Your task to perform on an android device: Open Amazon Image 0: 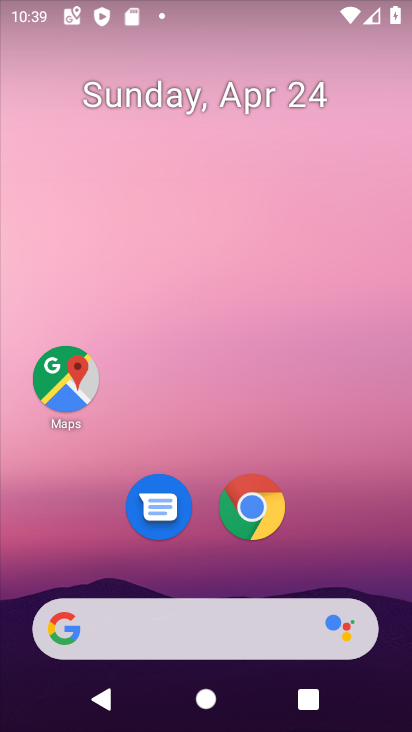
Step 0: click (266, 514)
Your task to perform on an android device: Open Amazon Image 1: 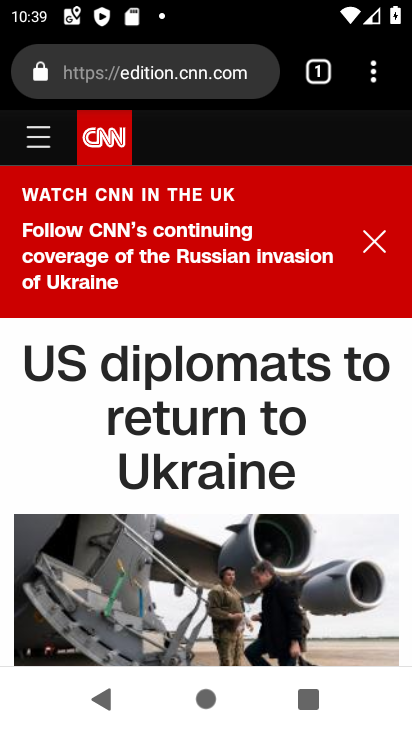
Step 1: click (319, 77)
Your task to perform on an android device: Open Amazon Image 2: 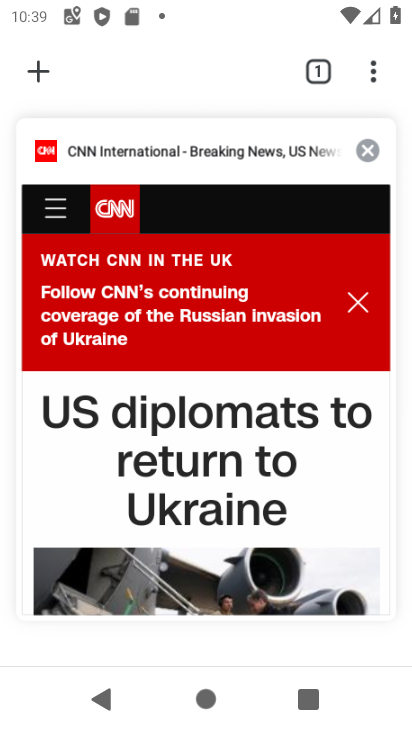
Step 2: click (371, 161)
Your task to perform on an android device: Open Amazon Image 3: 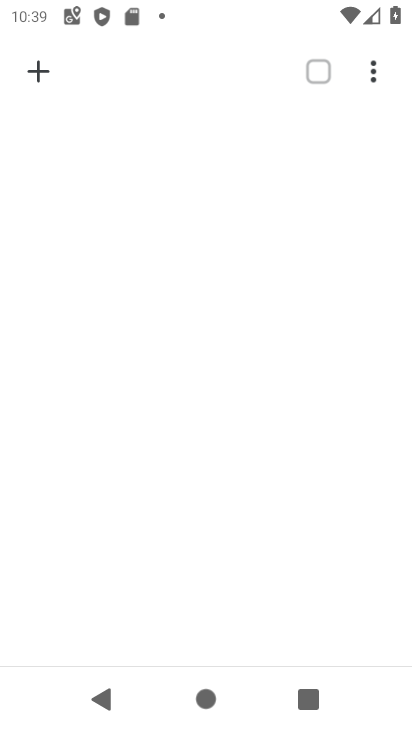
Step 3: click (32, 78)
Your task to perform on an android device: Open Amazon Image 4: 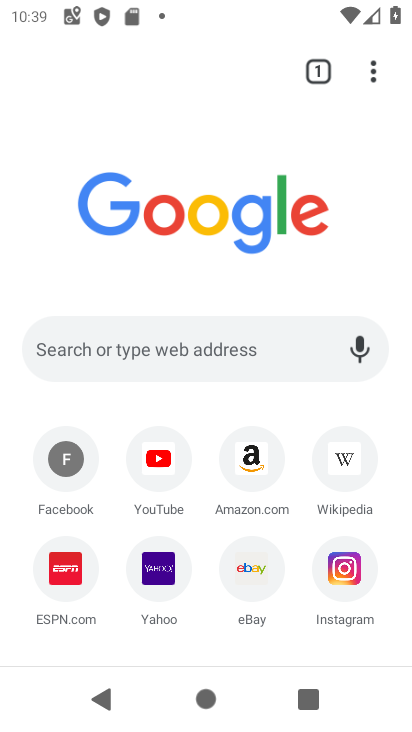
Step 4: click (269, 448)
Your task to perform on an android device: Open Amazon Image 5: 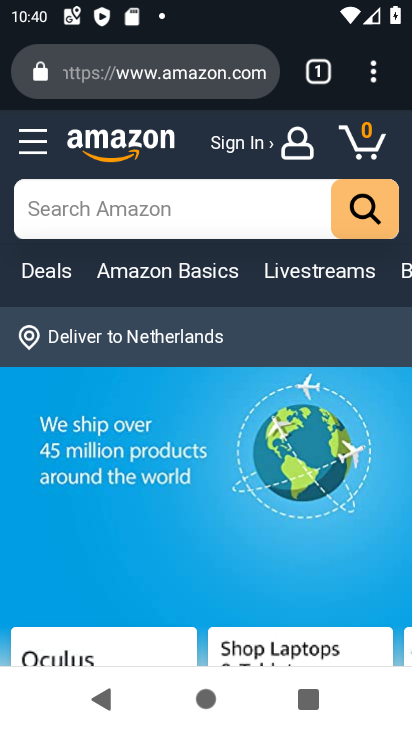
Step 5: task complete